Your task to perform on an android device: Show me popular videos on Youtube Image 0: 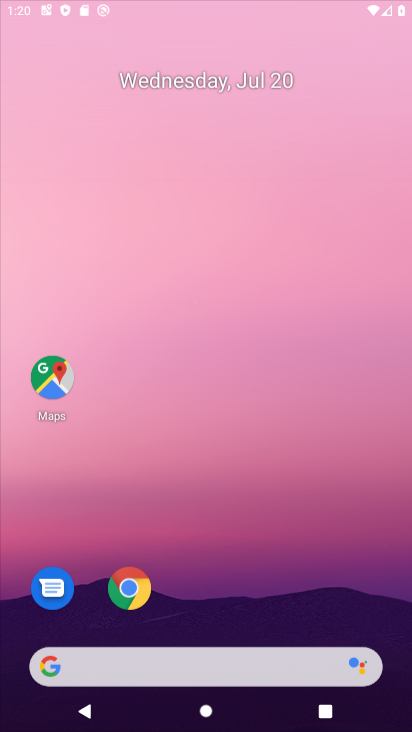
Step 0: drag from (390, 602) to (346, 109)
Your task to perform on an android device: Show me popular videos on Youtube Image 1: 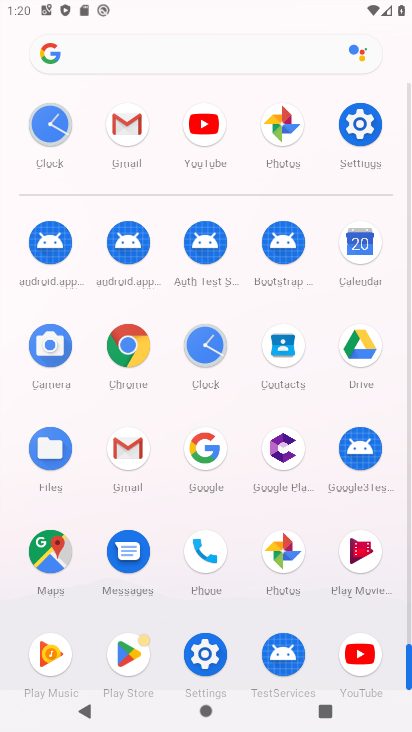
Step 1: click (354, 137)
Your task to perform on an android device: Show me popular videos on Youtube Image 2: 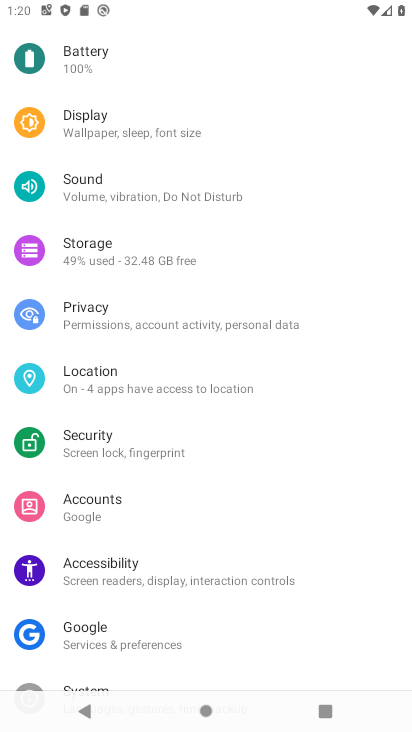
Step 2: click (86, 125)
Your task to perform on an android device: Show me popular videos on Youtube Image 3: 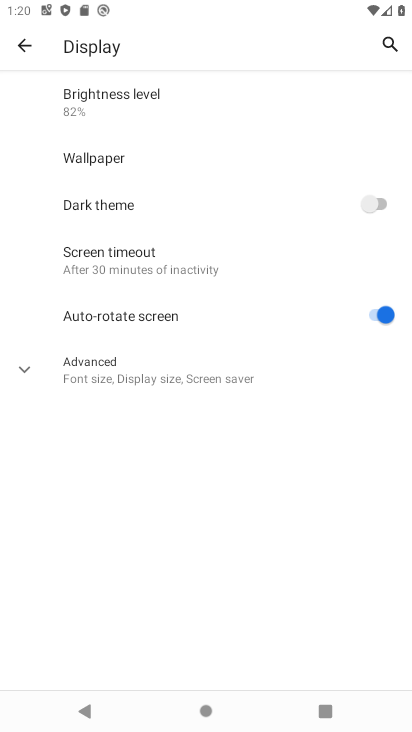
Step 3: task complete